Your task to perform on an android device: toggle data saver in the chrome app Image 0: 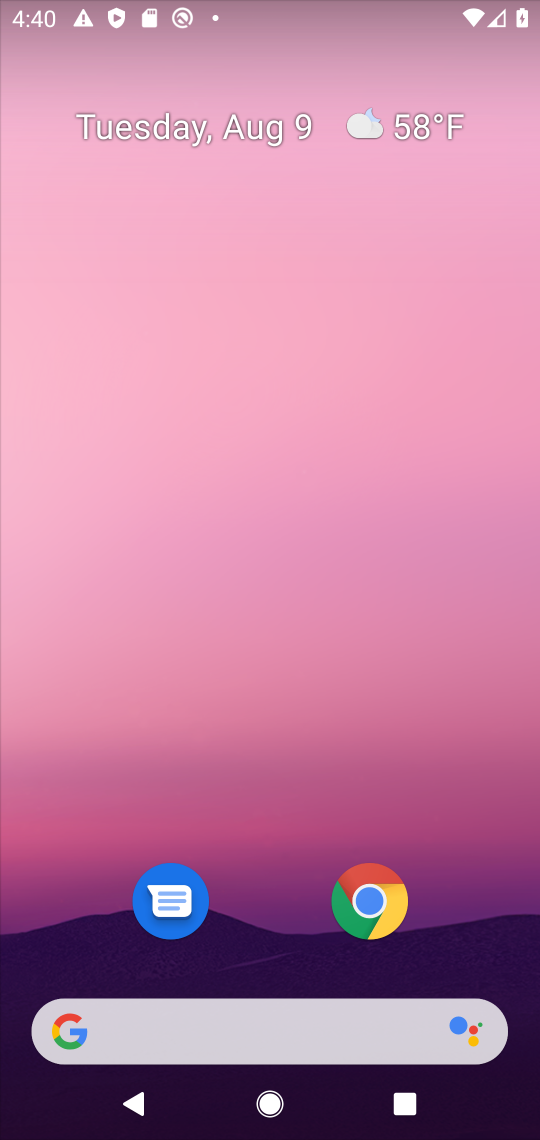
Step 0: press home button
Your task to perform on an android device: toggle data saver in the chrome app Image 1: 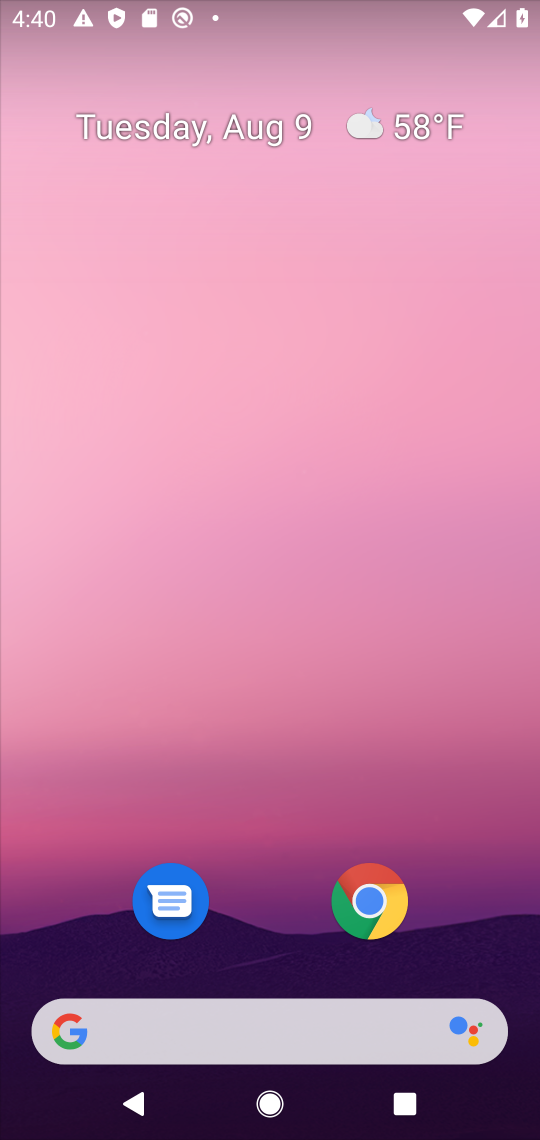
Step 1: press home button
Your task to perform on an android device: toggle data saver in the chrome app Image 2: 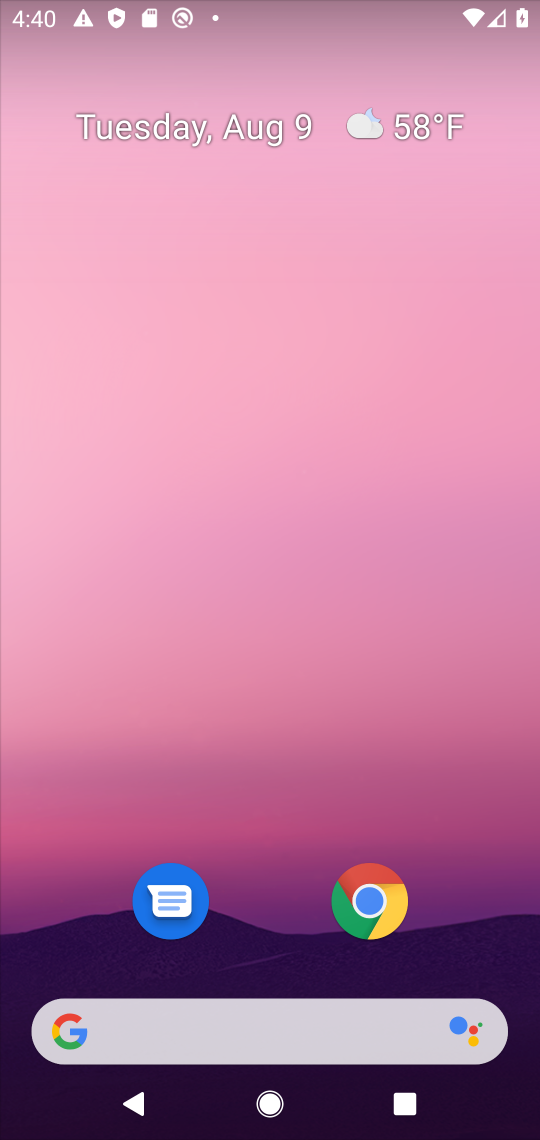
Step 2: press home button
Your task to perform on an android device: toggle data saver in the chrome app Image 3: 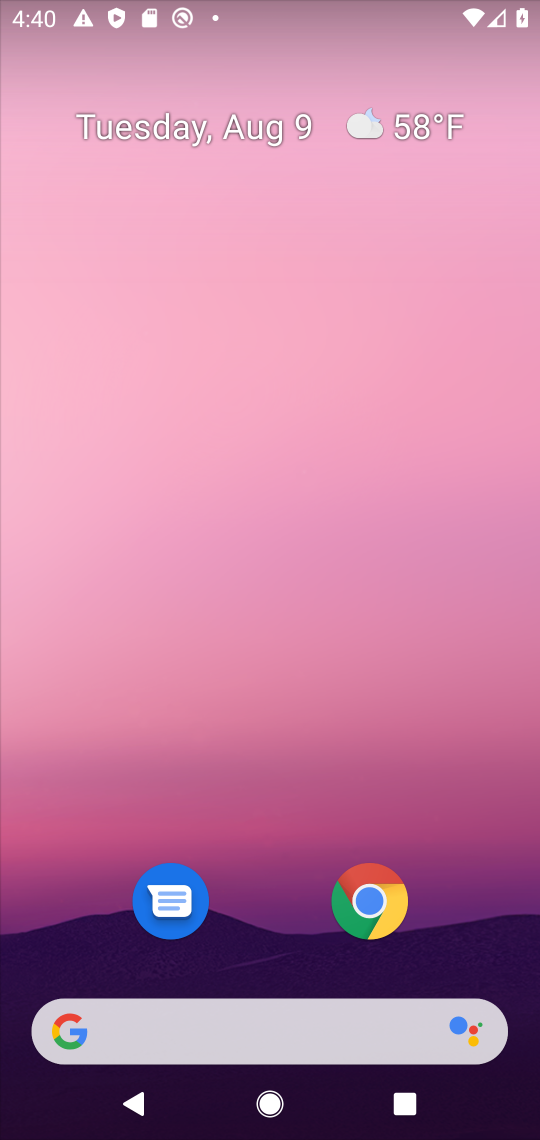
Step 3: drag from (268, 938) to (278, 134)
Your task to perform on an android device: toggle data saver in the chrome app Image 4: 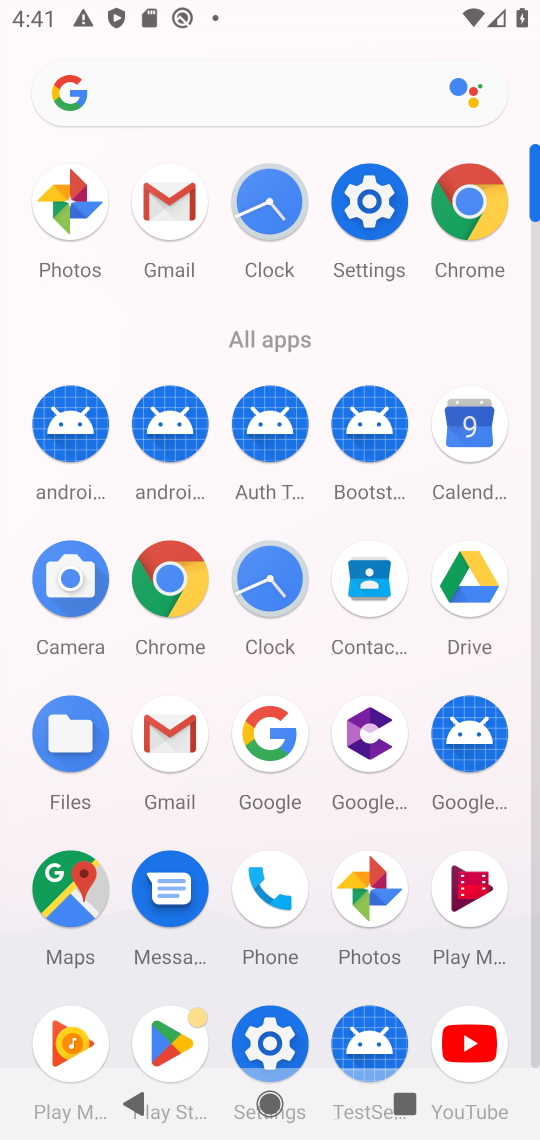
Step 4: click (210, 1050)
Your task to perform on an android device: toggle data saver in the chrome app Image 5: 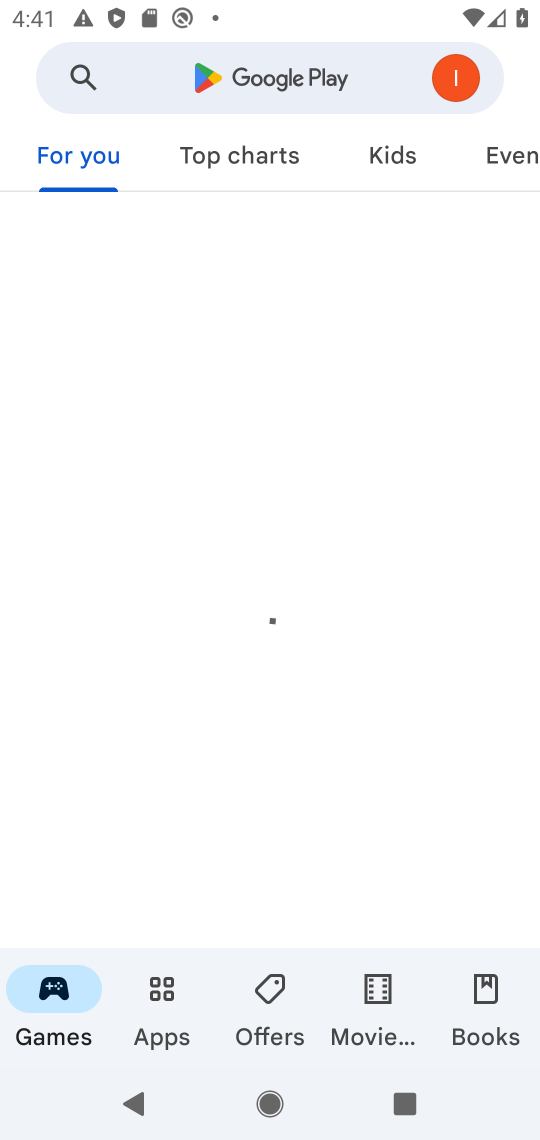
Step 5: press home button
Your task to perform on an android device: toggle data saver in the chrome app Image 6: 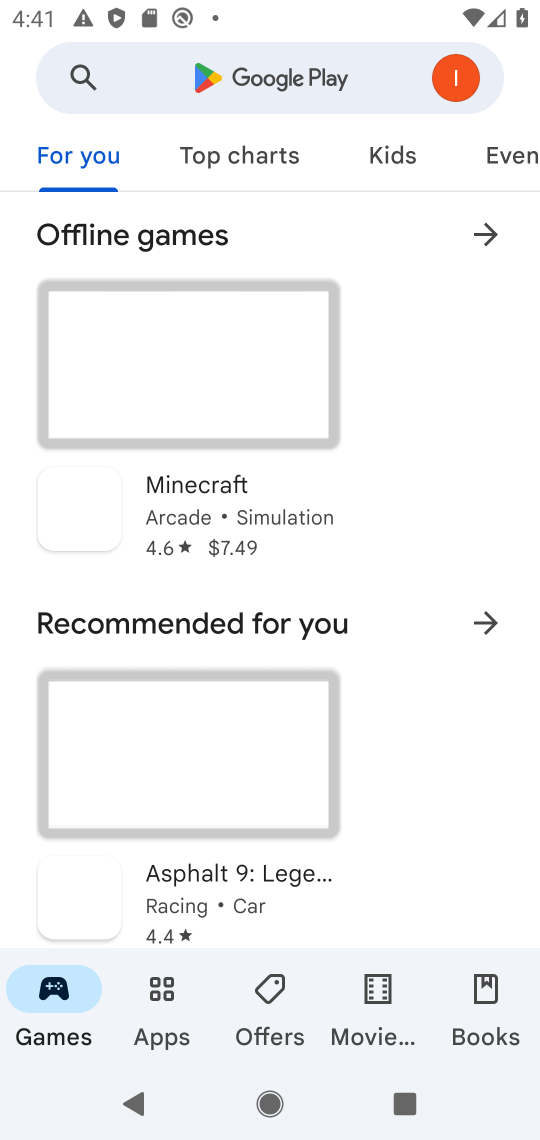
Step 6: press home button
Your task to perform on an android device: toggle data saver in the chrome app Image 7: 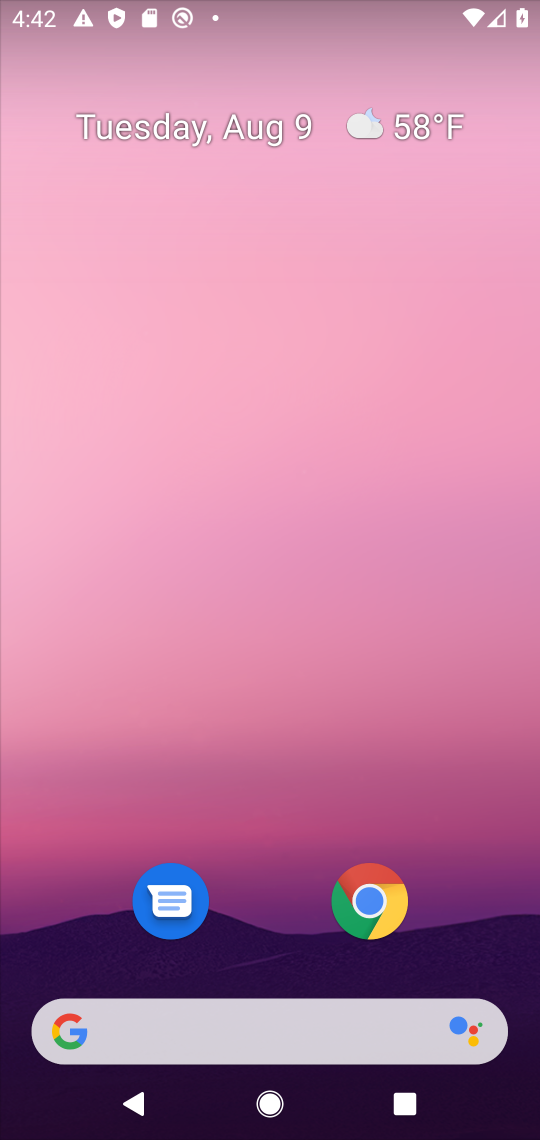
Step 7: click (369, 931)
Your task to perform on an android device: toggle data saver in the chrome app Image 8: 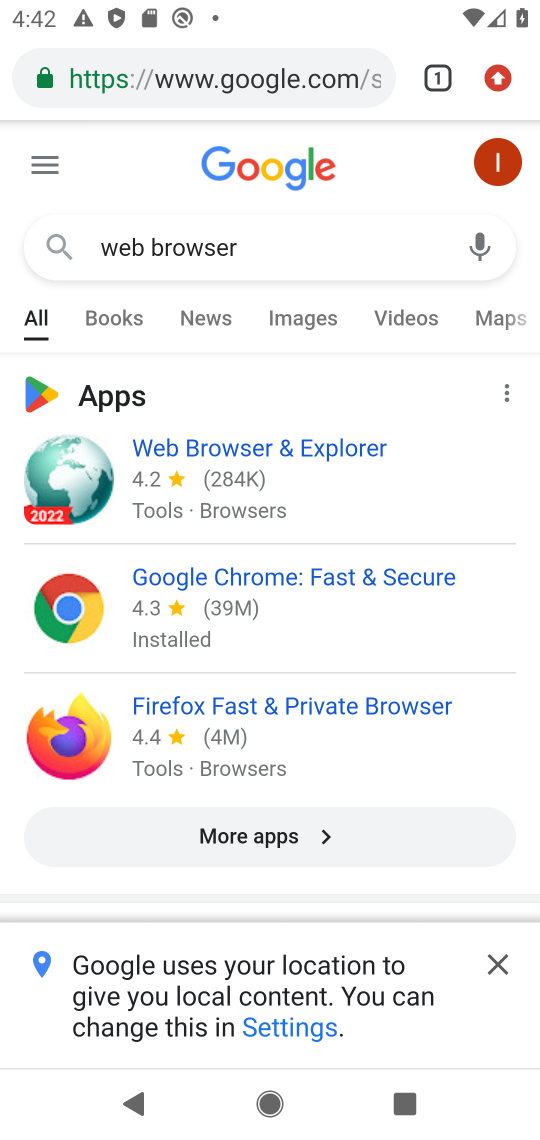
Step 8: click (498, 89)
Your task to perform on an android device: toggle data saver in the chrome app Image 9: 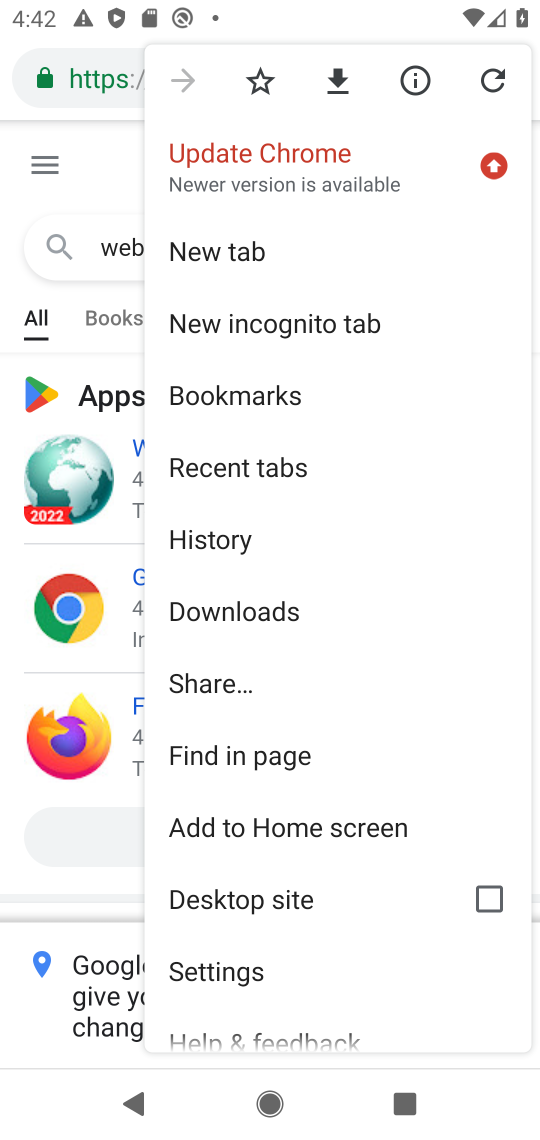
Step 9: click (225, 971)
Your task to perform on an android device: toggle data saver in the chrome app Image 10: 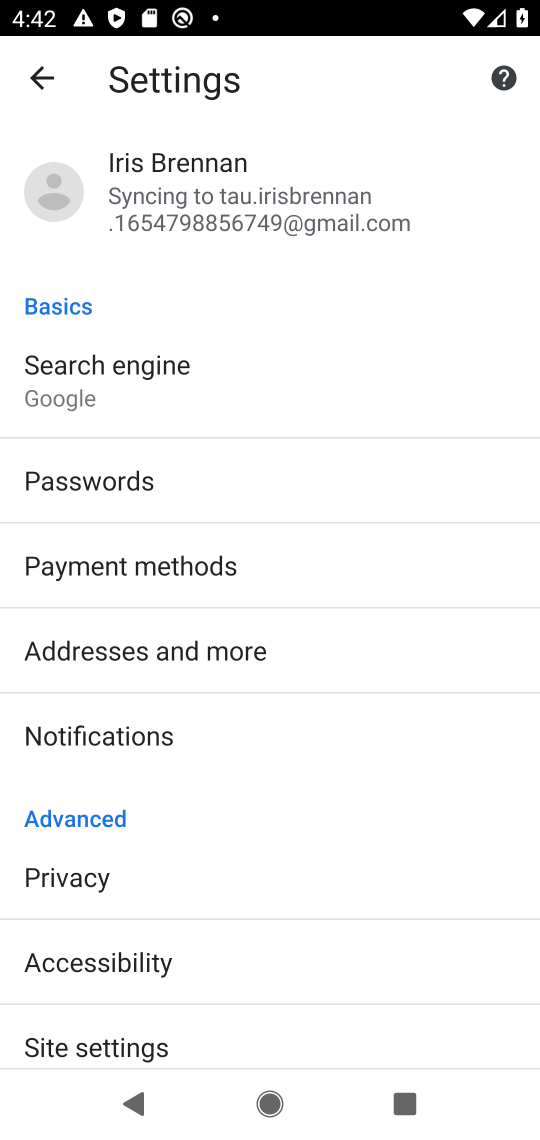
Step 10: drag from (346, 1050) to (380, 321)
Your task to perform on an android device: toggle data saver in the chrome app Image 11: 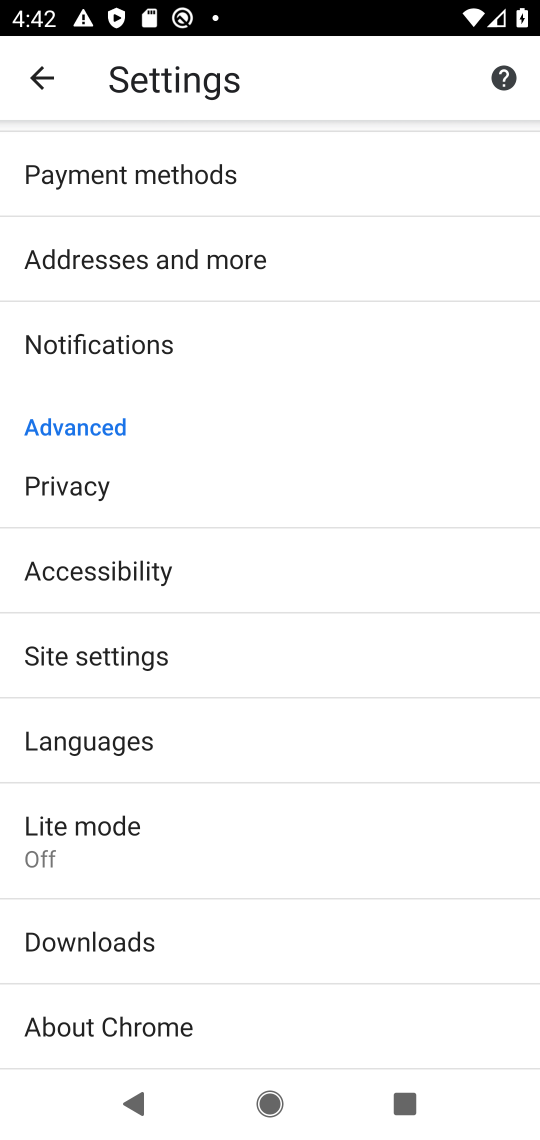
Step 11: click (406, 835)
Your task to perform on an android device: toggle data saver in the chrome app Image 12: 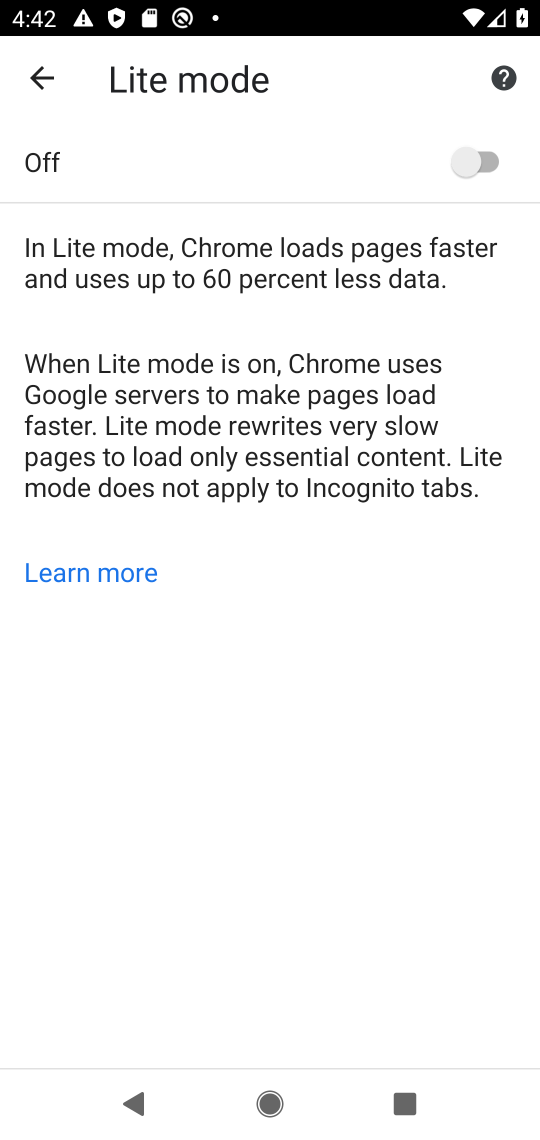
Step 12: click (312, 178)
Your task to perform on an android device: toggle data saver in the chrome app Image 13: 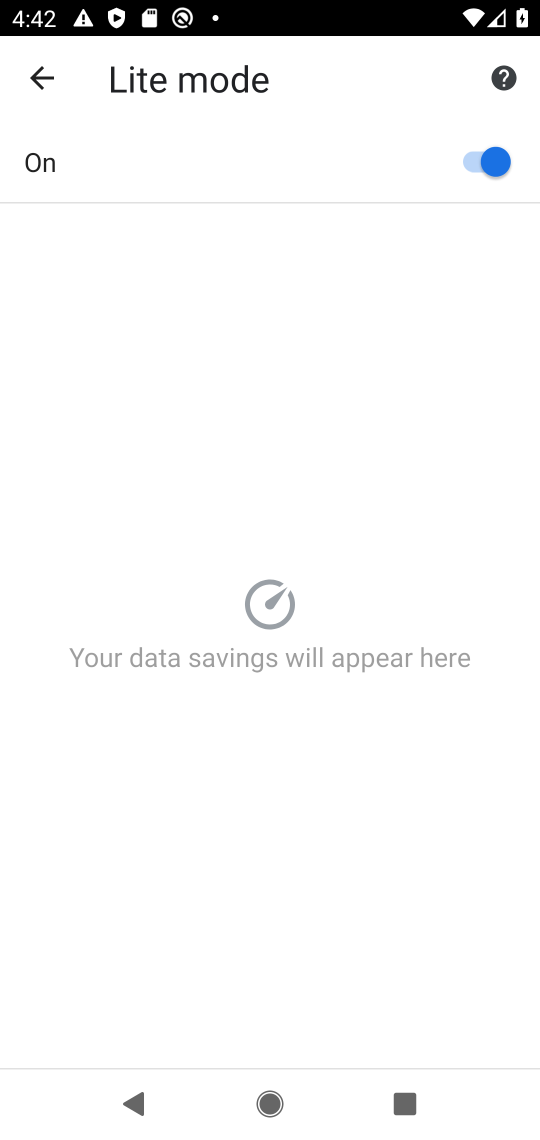
Step 13: task complete